Your task to perform on an android device: Open Chrome and go to the settings page Image 0: 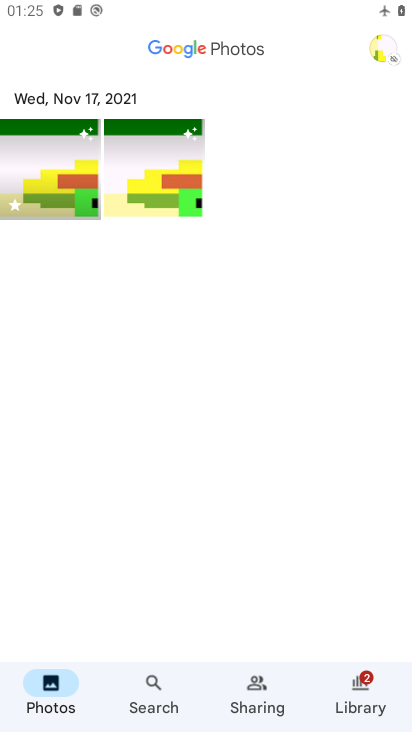
Step 0: press home button
Your task to perform on an android device: Open Chrome and go to the settings page Image 1: 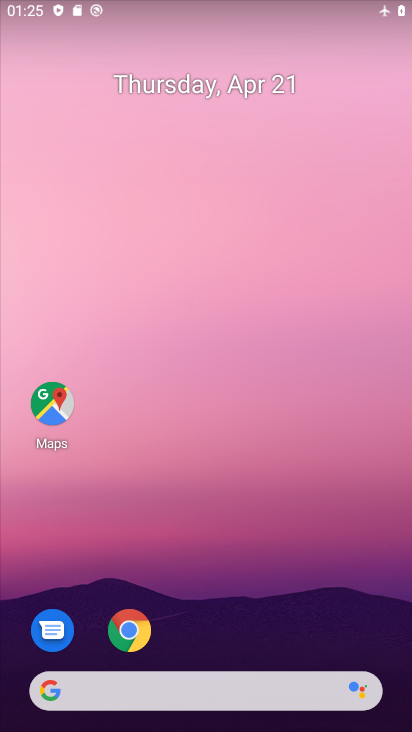
Step 1: click (133, 625)
Your task to perform on an android device: Open Chrome and go to the settings page Image 2: 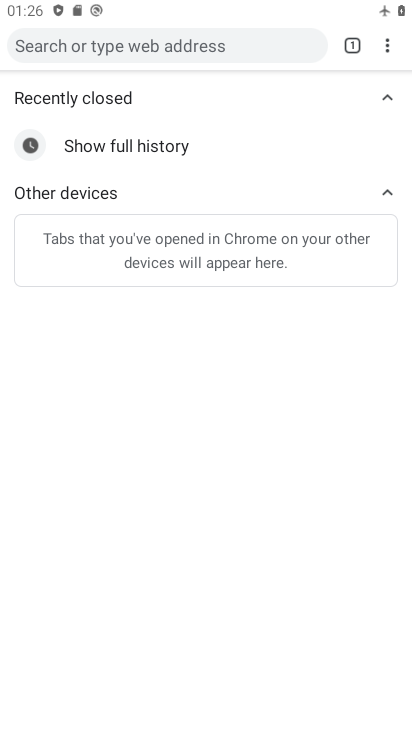
Step 2: click (385, 36)
Your task to perform on an android device: Open Chrome and go to the settings page Image 3: 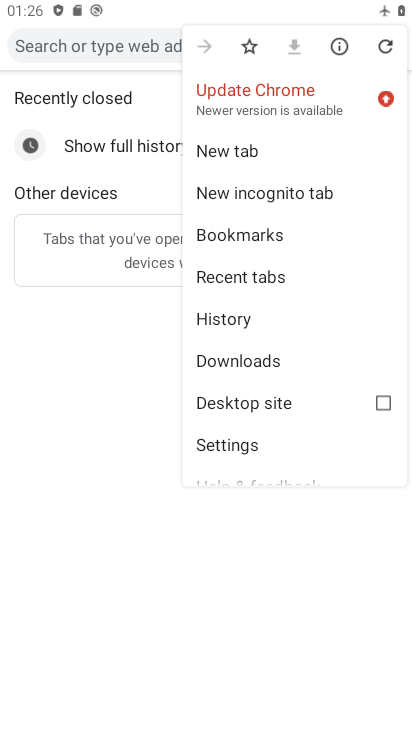
Step 3: click (276, 433)
Your task to perform on an android device: Open Chrome and go to the settings page Image 4: 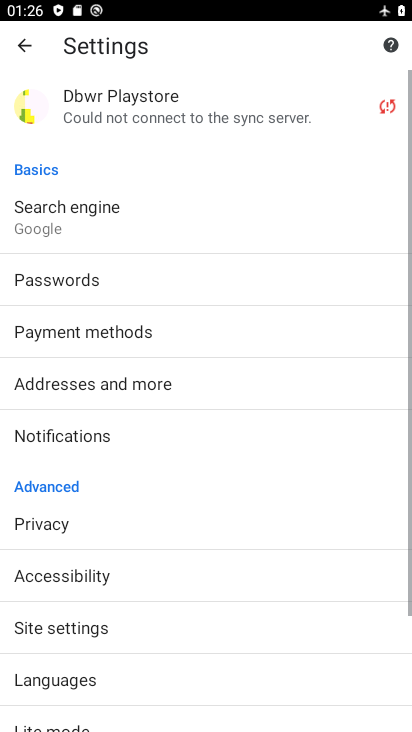
Step 4: task complete